Your task to perform on an android device: move an email to a new category in the gmail app Image 0: 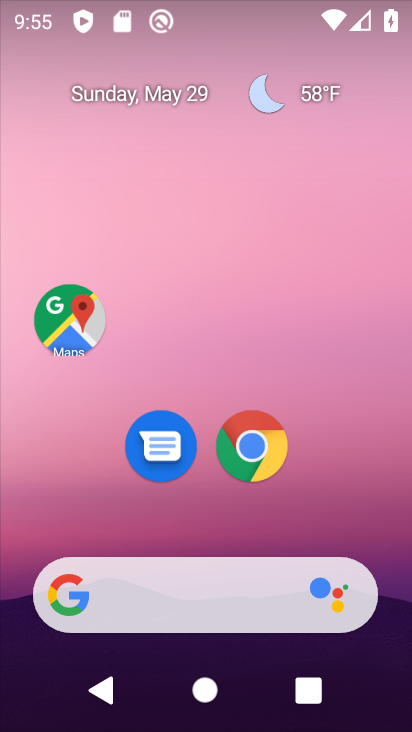
Step 0: drag from (204, 473) to (227, 251)
Your task to perform on an android device: move an email to a new category in the gmail app Image 1: 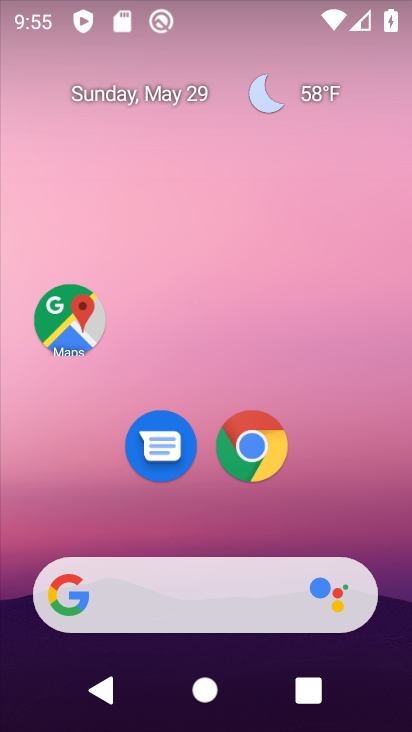
Step 1: drag from (238, 546) to (240, 112)
Your task to perform on an android device: move an email to a new category in the gmail app Image 2: 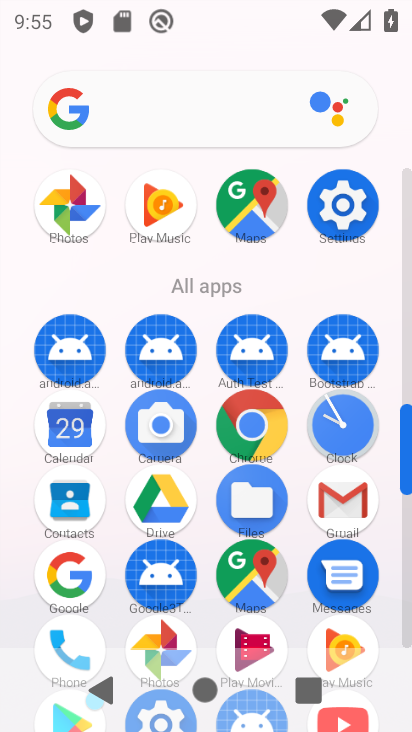
Step 2: click (337, 508)
Your task to perform on an android device: move an email to a new category in the gmail app Image 3: 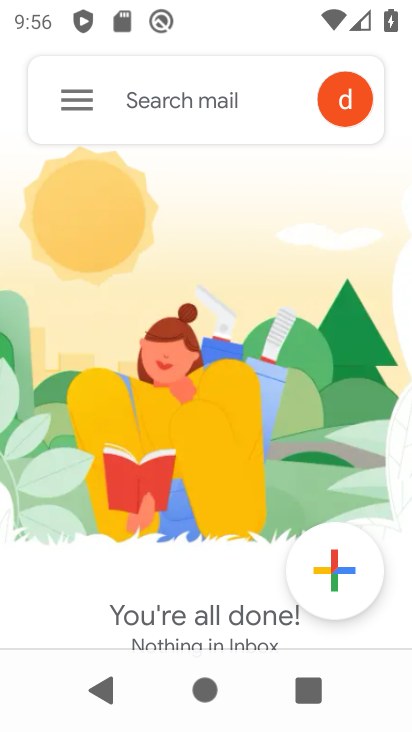
Step 3: task complete